Your task to perform on an android device: turn on location history Image 0: 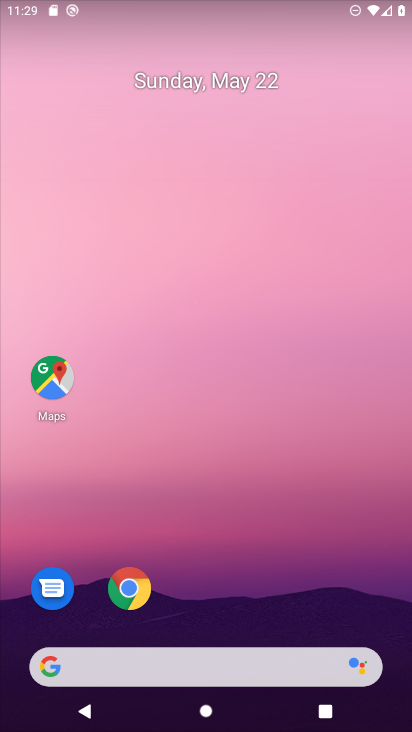
Step 0: drag from (190, 650) to (264, 109)
Your task to perform on an android device: turn on location history Image 1: 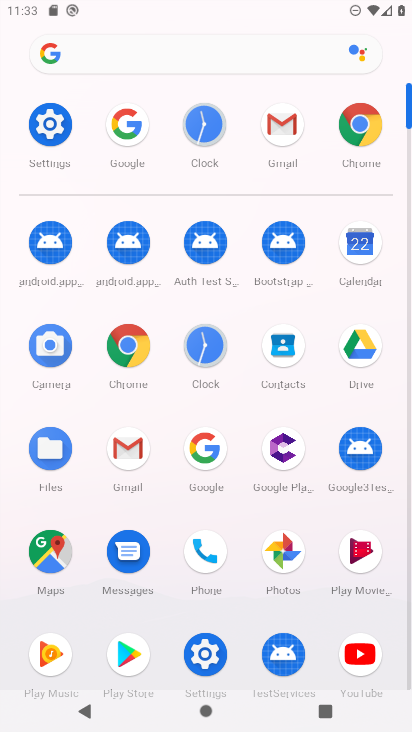
Step 1: click (208, 652)
Your task to perform on an android device: turn on location history Image 2: 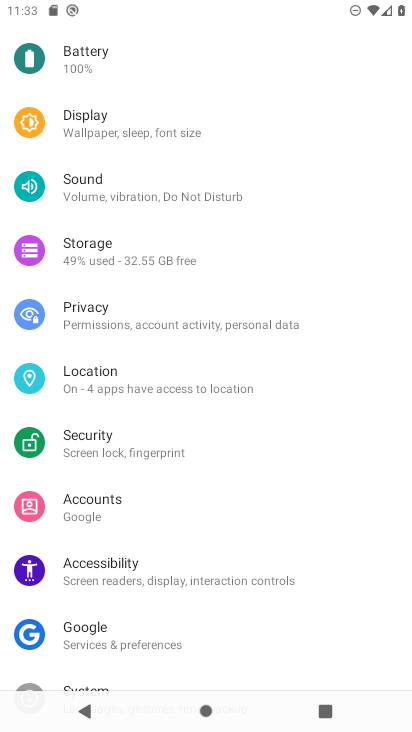
Step 2: click (140, 381)
Your task to perform on an android device: turn on location history Image 3: 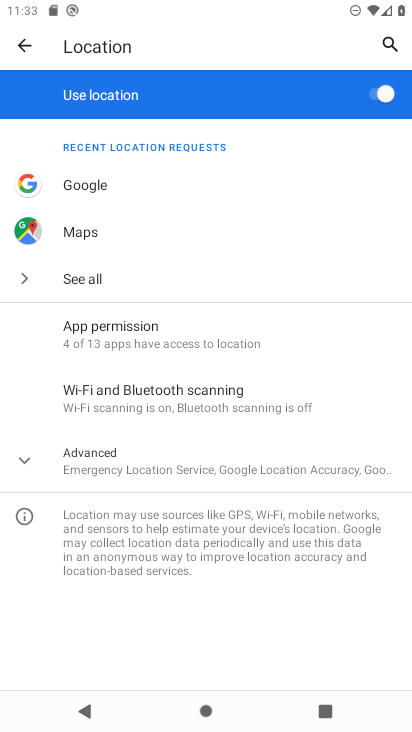
Step 3: click (158, 470)
Your task to perform on an android device: turn on location history Image 4: 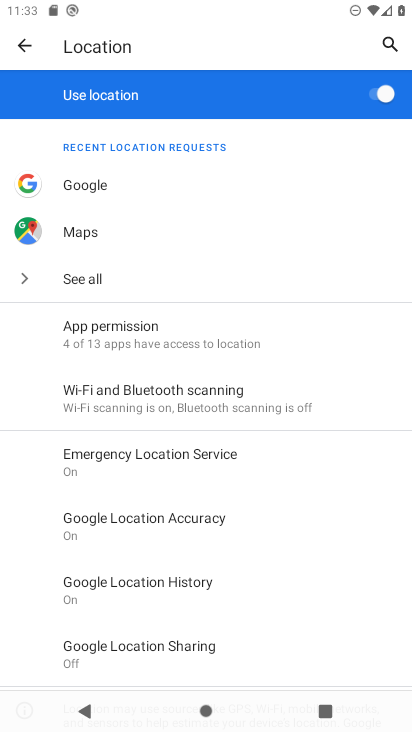
Step 4: click (148, 588)
Your task to perform on an android device: turn on location history Image 5: 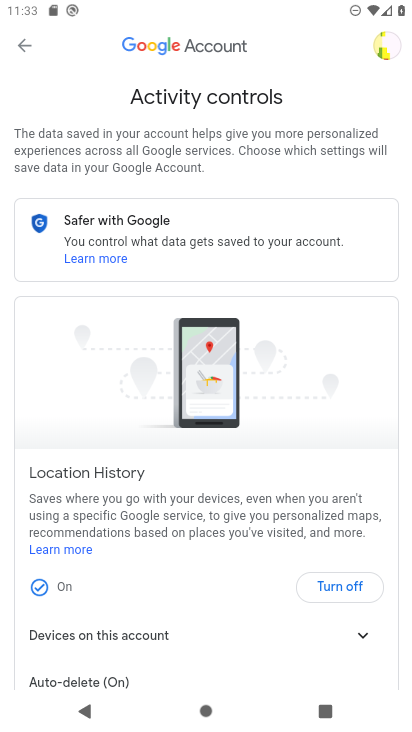
Step 5: task complete